Your task to perform on an android device: turn off location history Image 0: 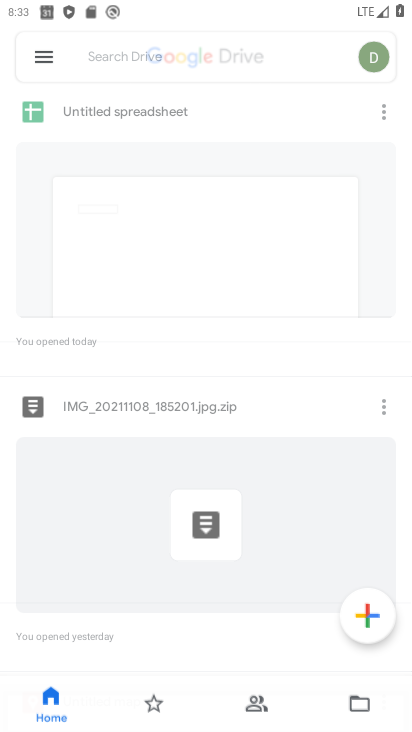
Step 0: drag from (157, 506) to (216, 46)
Your task to perform on an android device: turn off location history Image 1: 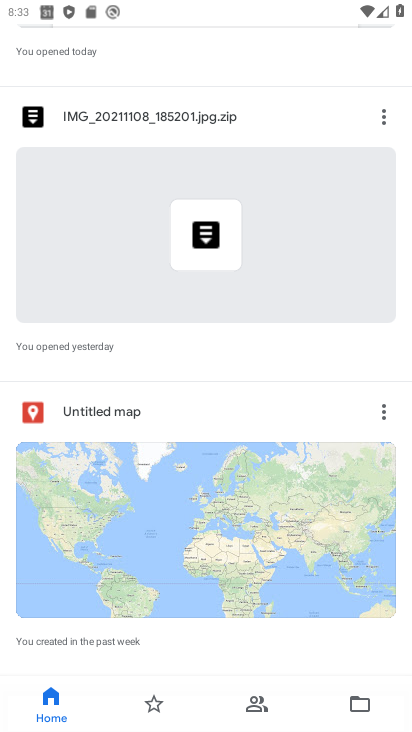
Step 1: drag from (174, 361) to (251, 22)
Your task to perform on an android device: turn off location history Image 2: 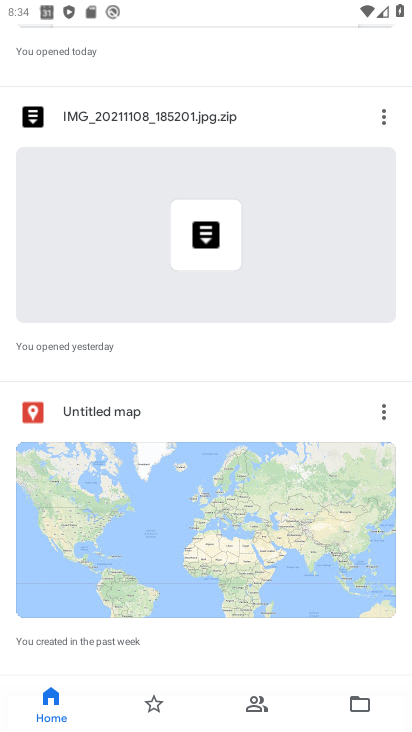
Step 2: drag from (192, 105) to (396, 530)
Your task to perform on an android device: turn off location history Image 3: 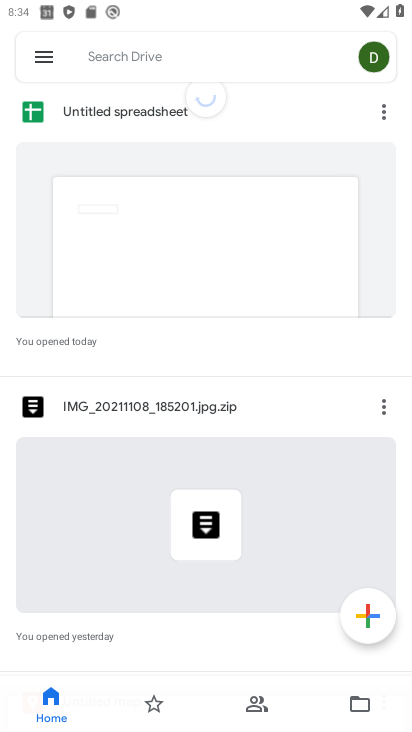
Step 3: press home button
Your task to perform on an android device: turn off location history Image 4: 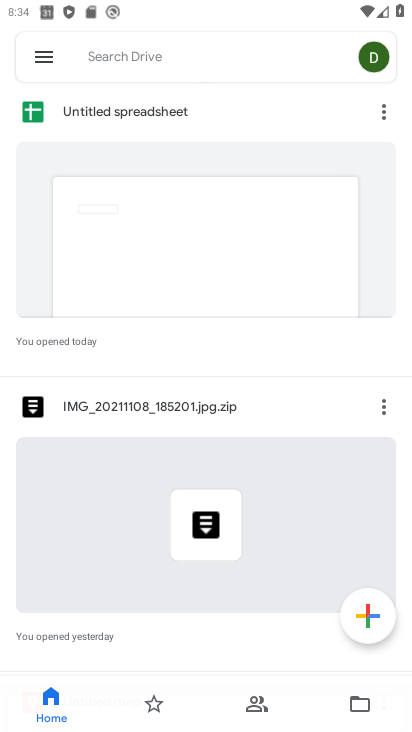
Step 4: drag from (396, 530) to (405, 311)
Your task to perform on an android device: turn off location history Image 5: 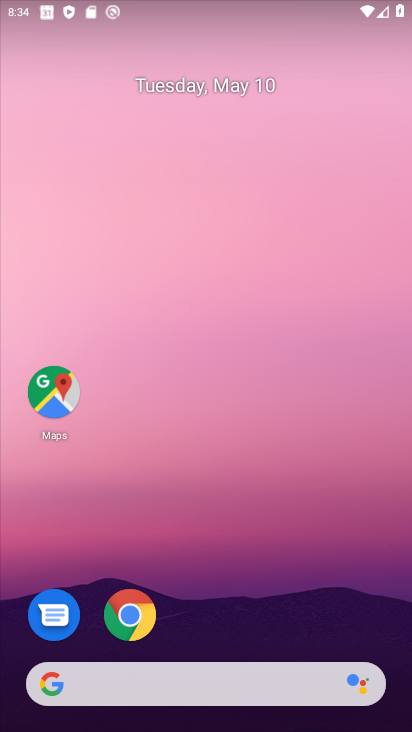
Step 5: drag from (189, 612) to (229, 168)
Your task to perform on an android device: turn off location history Image 6: 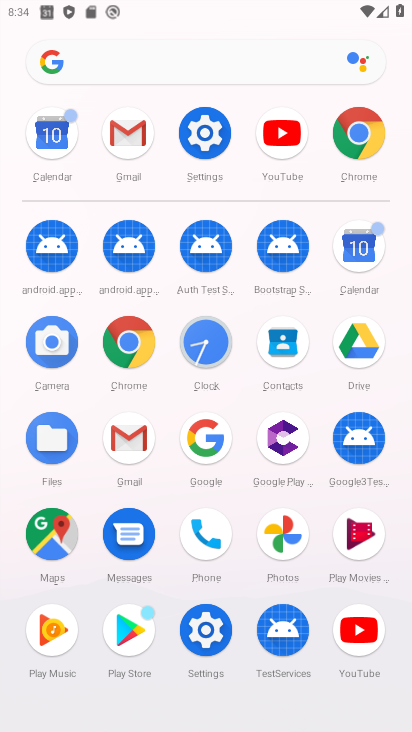
Step 6: click (193, 140)
Your task to perform on an android device: turn off location history Image 7: 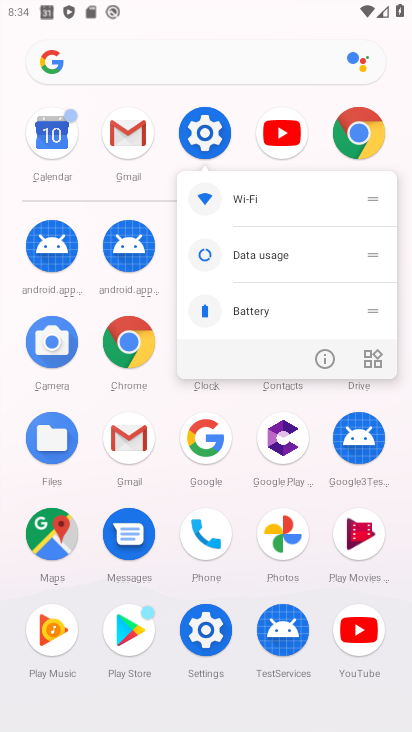
Step 7: click (322, 363)
Your task to perform on an android device: turn off location history Image 8: 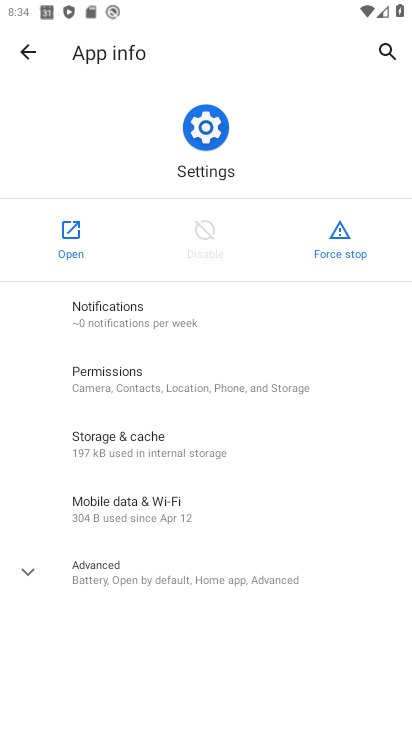
Step 8: drag from (151, 616) to (197, 316)
Your task to perform on an android device: turn off location history Image 9: 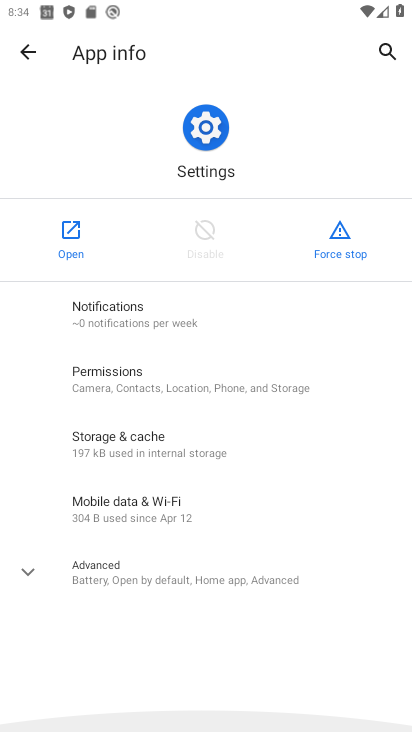
Step 9: click (58, 217)
Your task to perform on an android device: turn off location history Image 10: 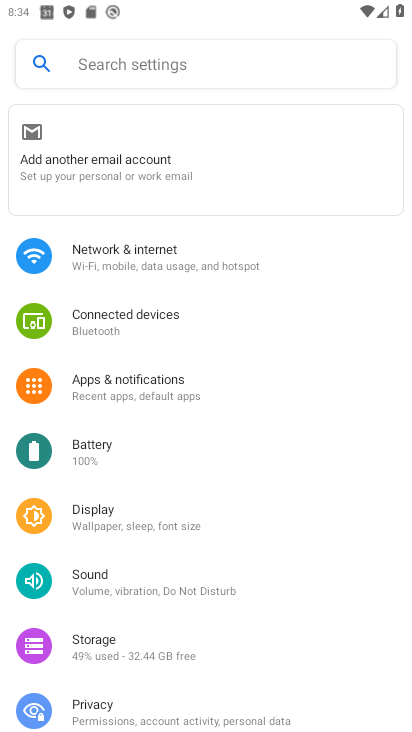
Step 10: drag from (180, 586) to (240, 173)
Your task to perform on an android device: turn off location history Image 11: 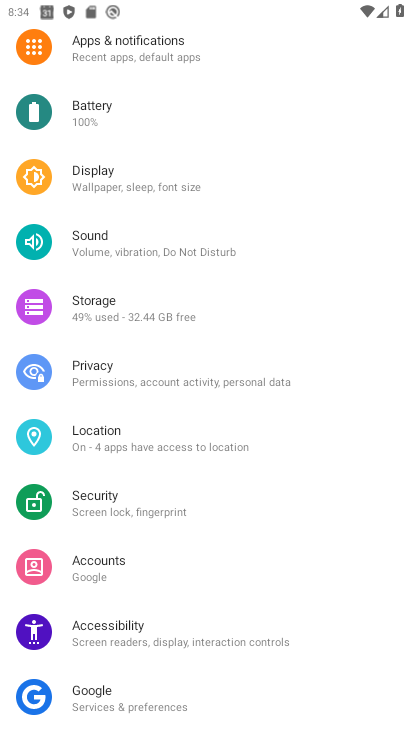
Step 11: drag from (108, 405) to (146, 429)
Your task to perform on an android device: turn off location history Image 12: 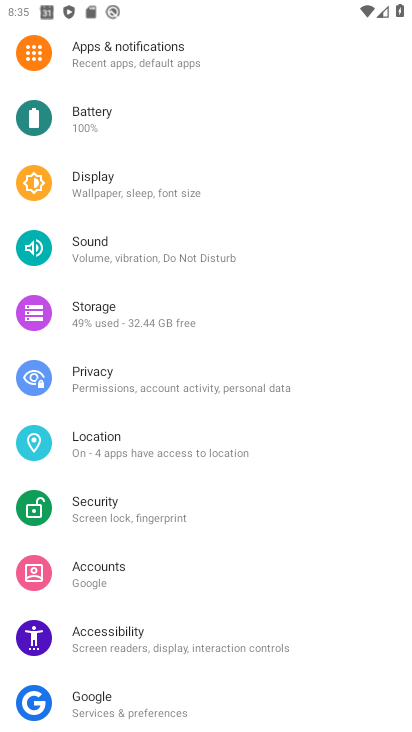
Step 12: click (146, 429)
Your task to perform on an android device: turn off location history Image 13: 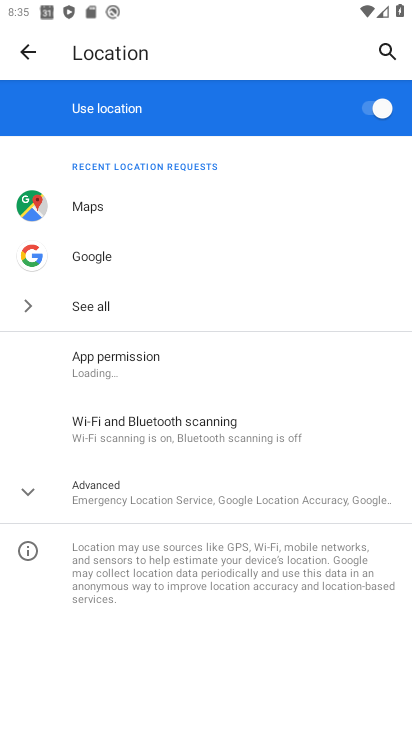
Step 13: click (107, 480)
Your task to perform on an android device: turn off location history Image 14: 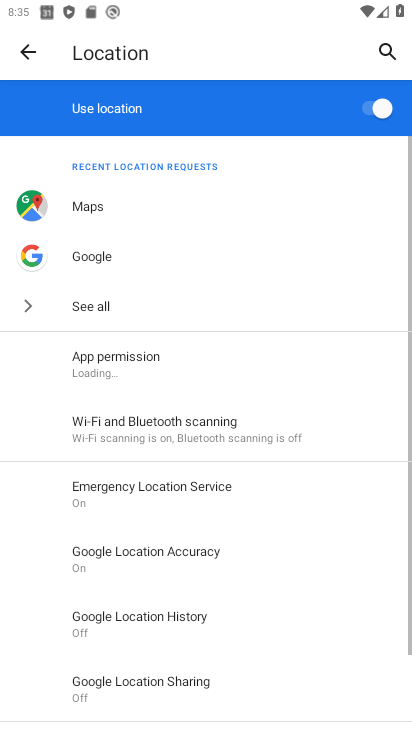
Step 14: drag from (116, 456) to (195, 250)
Your task to perform on an android device: turn off location history Image 15: 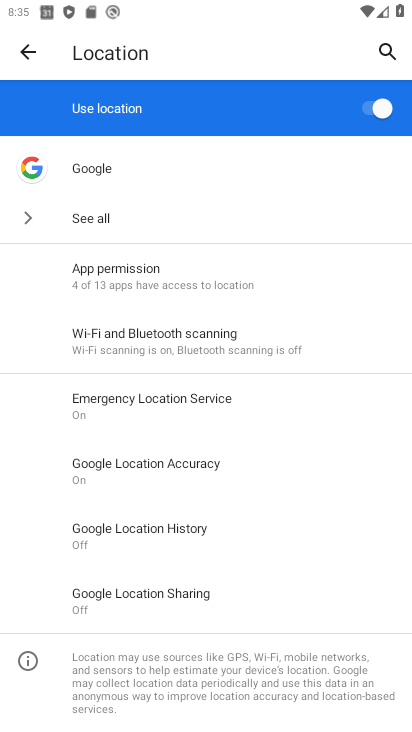
Step 15: click (144, 514)
Your task to perform on an android device: turn off location history Image 16: 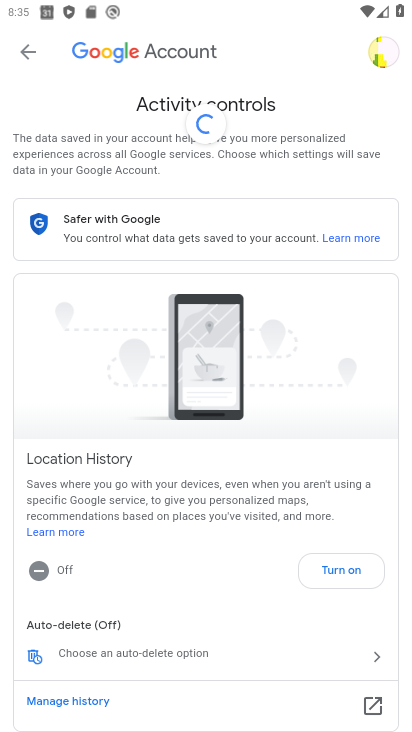
Step 16: task complete